Your task to perform on an android device: open app "DoorDash - Dasher" (install if not already installed) and go to login screen Image 0: 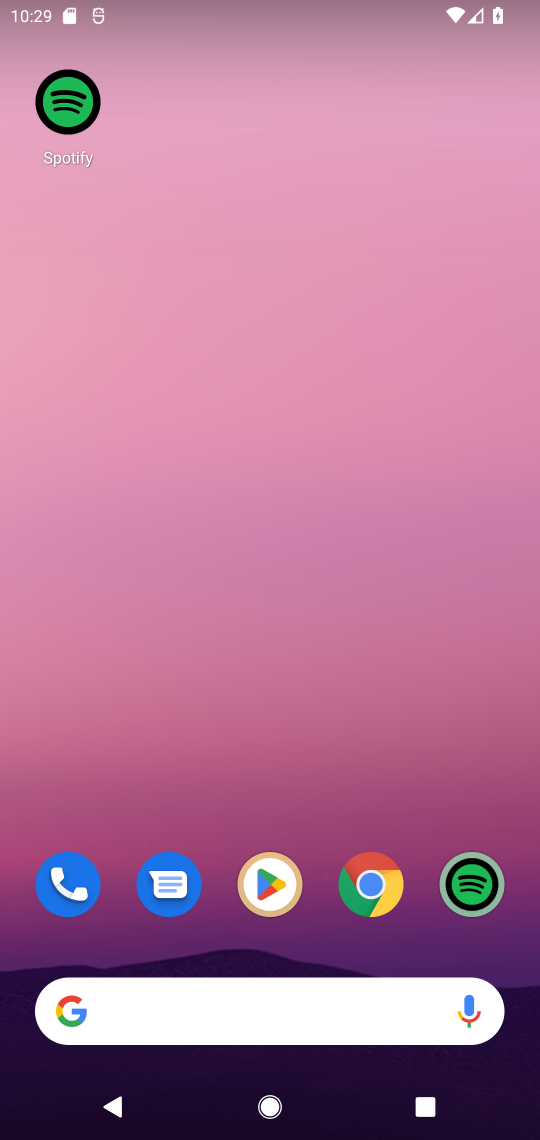
Step 0: click (270, 882)
Your task to perform on an android device: open app "DoorDash - Dasher" (install if not already installed) and go to login screen Image 1: 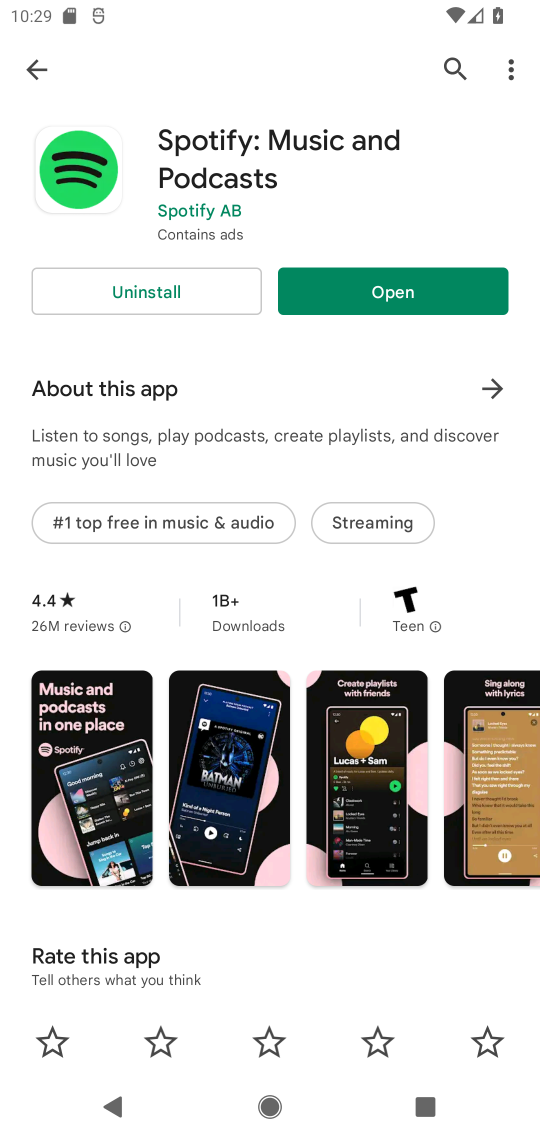
Step 1: click (450, 62)
Your task to perform on an android device: open app "DoorDash - Dasher" (install if not already installed) and go to login screen Image 2: 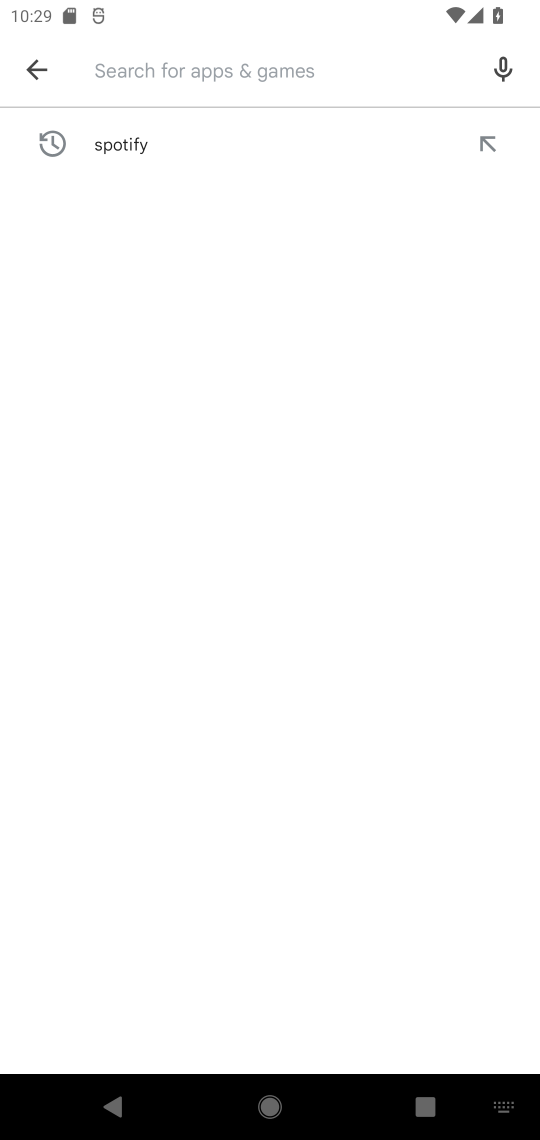
Step 2: type "DoorDash - Dasher"
Your task to perform on an android device: open app "DoorDash - Dasher" (install if not already installed) and go to login screen Image 3: 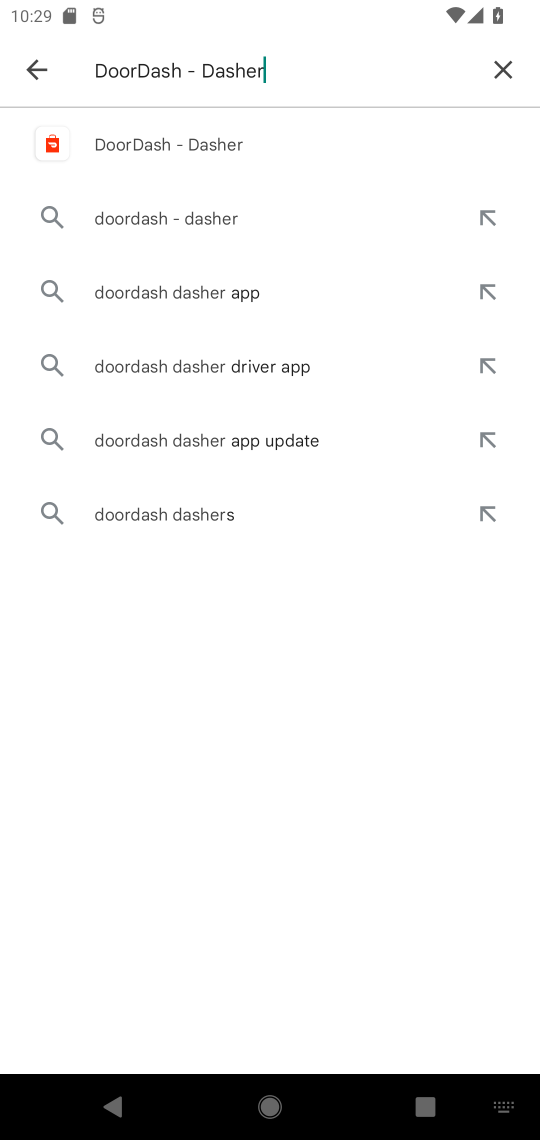
Step 3: click (173, 135)
Your task to perform on an android device: open app "DoorDash - Dasher" (install if not already installed) and go to login screen Image 4: 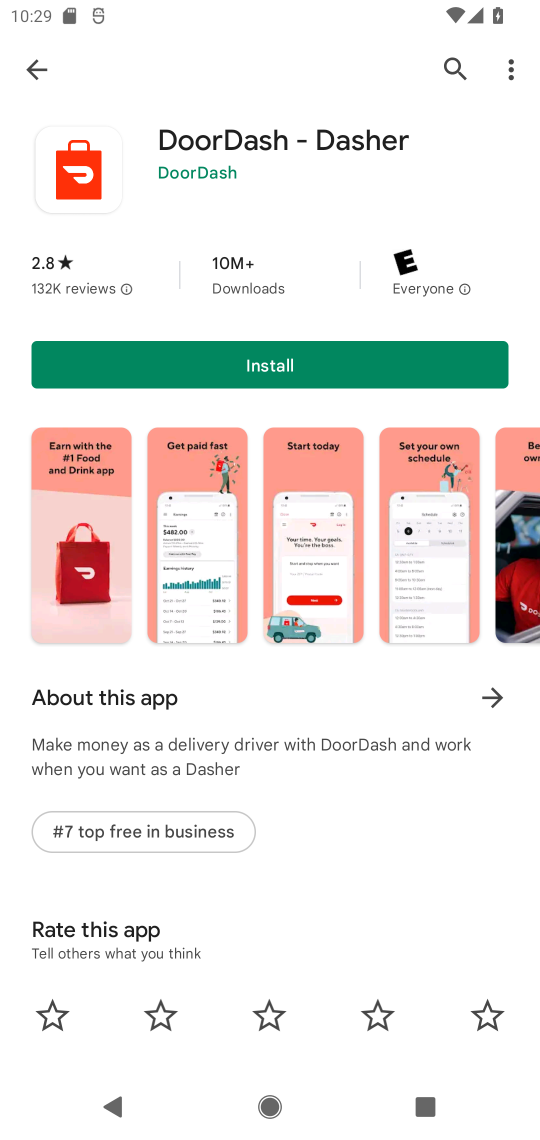
Step 4: click (276, 367)
Your task to perform on an android device: open app "DoorDash - Dasher" (install if not already installed) and go to login screen Image 5: 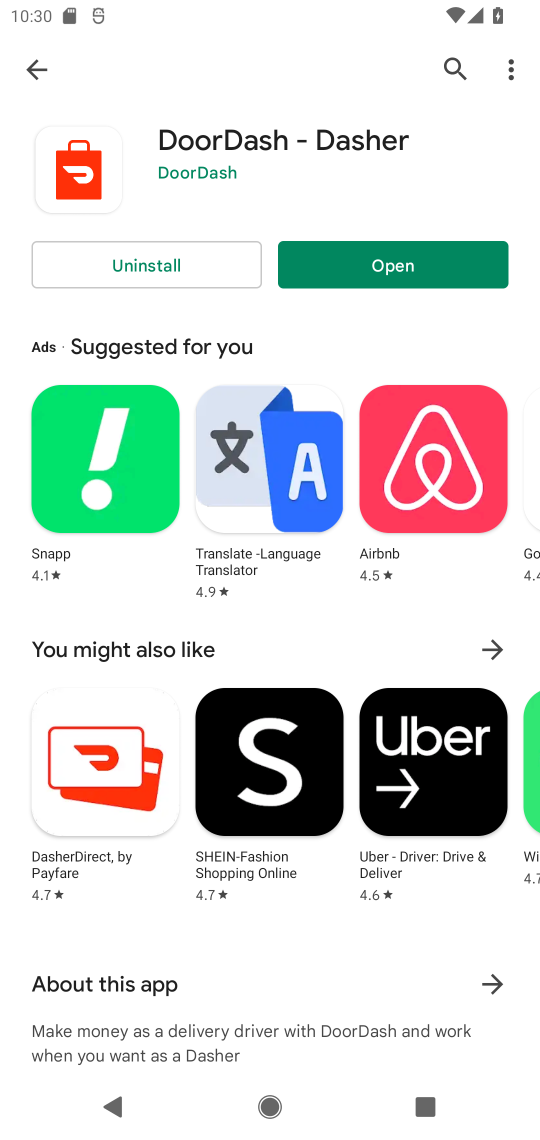
Step 5: click (390, 266)
Your task to perform on an android device: open app "DoorDash - Dasher" (install if not already installed) and go to login screen Image 6: 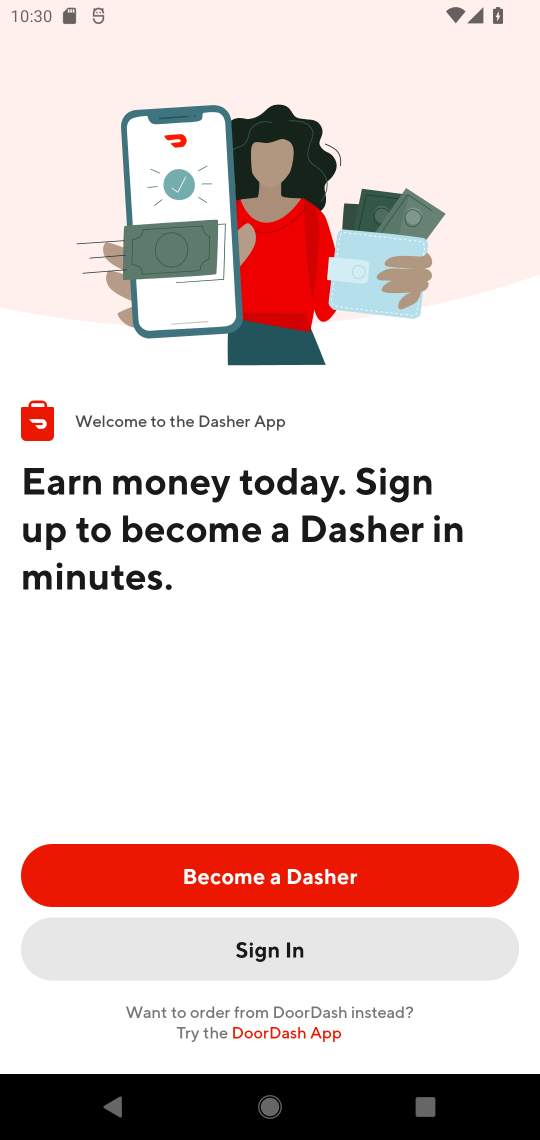
Step 6: click (257, 951)
Your task to perform on an android device: open app "DoorDash - Dasher" (install if not already installed) and go to login screen Image 7: 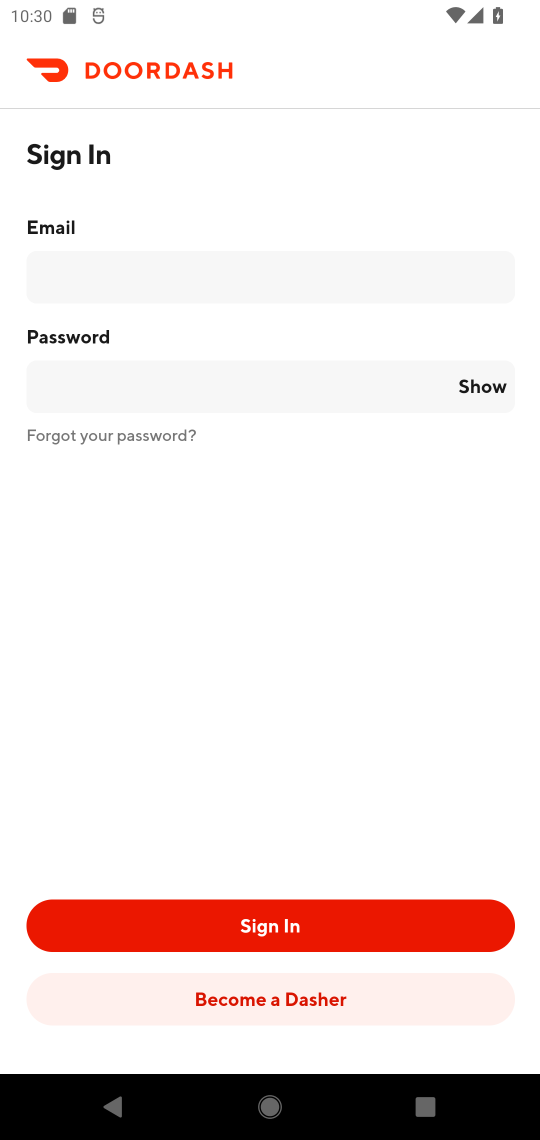
Step 7: task complete